Your task to perform on an android device: turn off data saver in the chrome app Image 0: 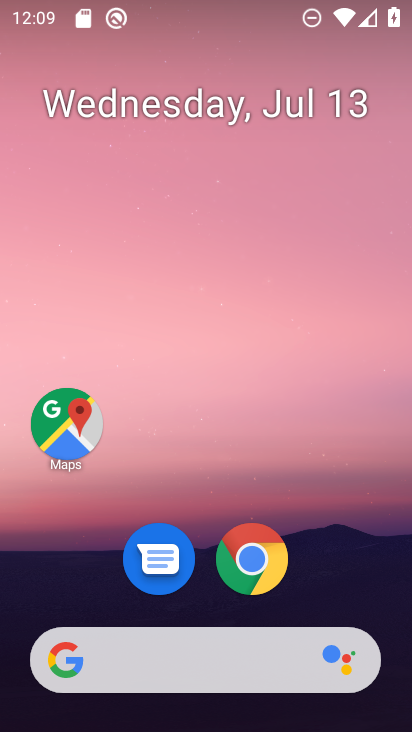
Step 0: drag from (239, 631) to (264, 53)
Your task to perform on an android device: turn off data saver in the chrome app Image 1: 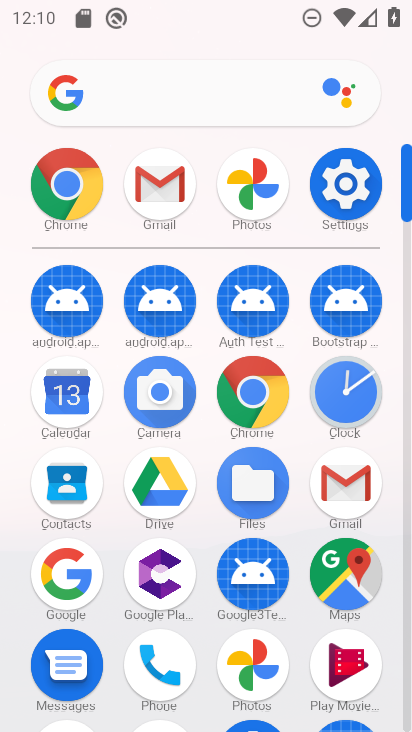
Step 1: click (247, 384)
Your task to perform on an android device: turn off data saver in the chrome app Image 2: 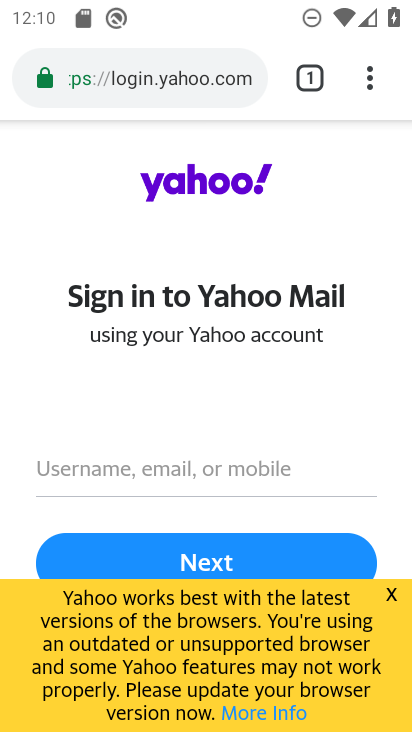
Step 2: click (369, 90)
Your task to perform on an android device: turn off data saver in the chrome app Image 3: 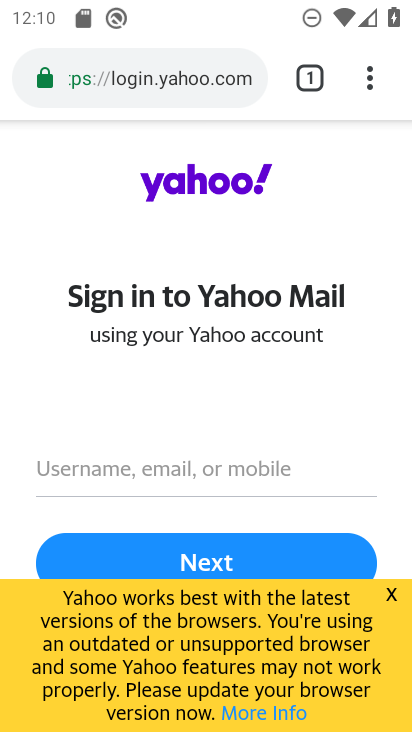
Step 3: click (365, 90)
Your task to perform on an android device: turn off data saver in the chrome app Image 4: 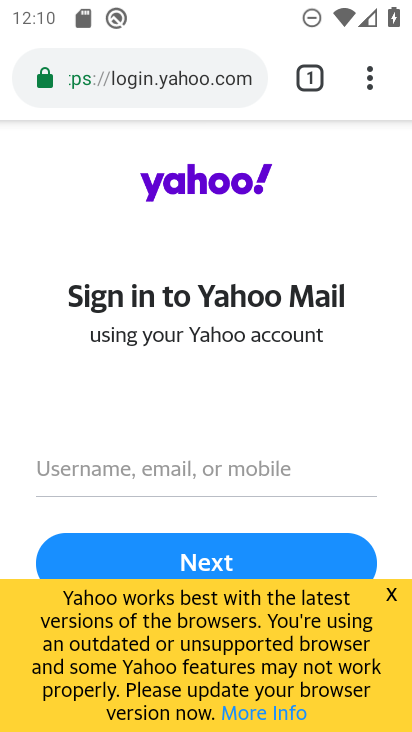
Step 4: click (370, 90)
Your task to perform on an android device: turn off data saver in the chrome app Image 5: 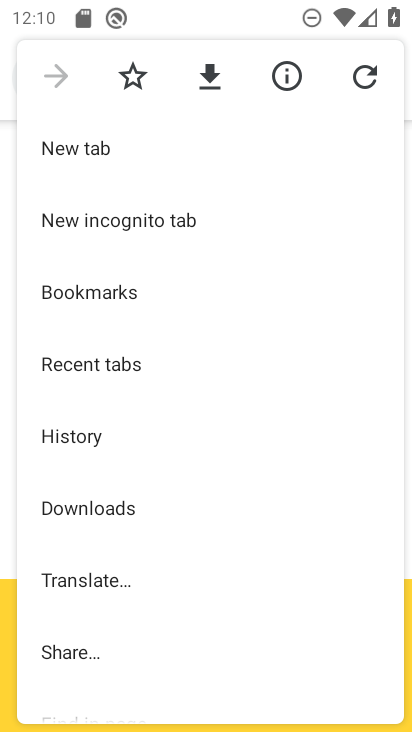
Step 5: drag from (153, 557) to (184, 178)
Your task to perform on an android device: turn off data saver in the chrome app Image 6: 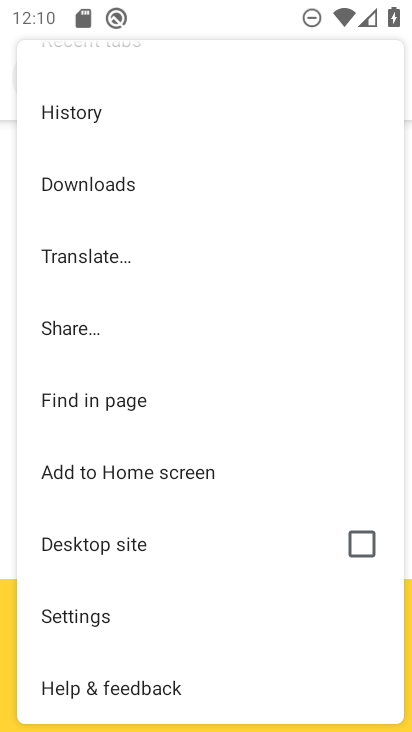
Step 6: click (67, 621)
Your task to perform on an android device: turn off data saver in the chrome app Image 7: 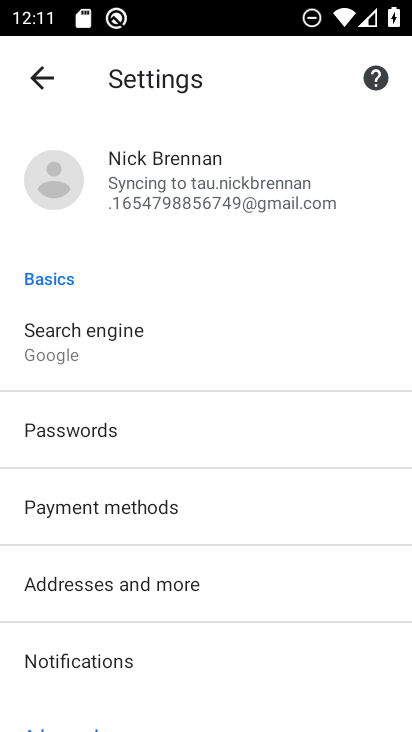
Step 7: drag from (164, 605) to (235, 129)
Your task to perform on an android device: turn off data saver in the chrome app Image 8: 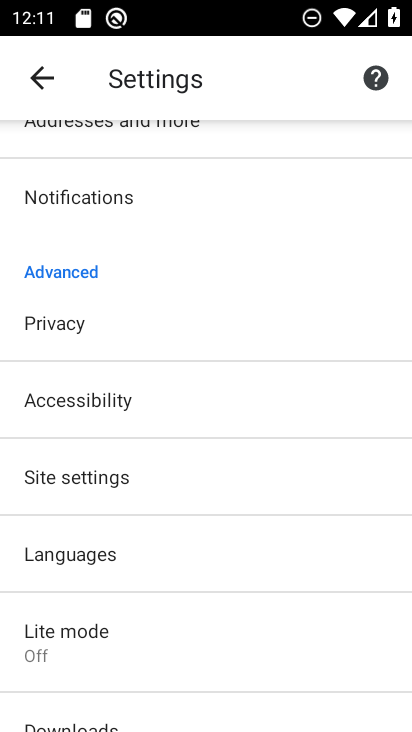
Step 8: drag from (79, 632) to (100, 330)
Your task to perform on an android device: turn off data saver in the chrome app Image 9: 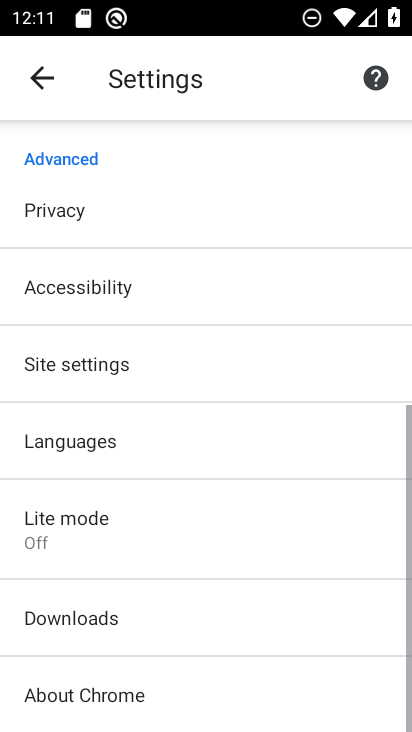
Step 9: click (81, 521)
Your task to perform on an android device: turn off data saver in the chrome app Image 10: 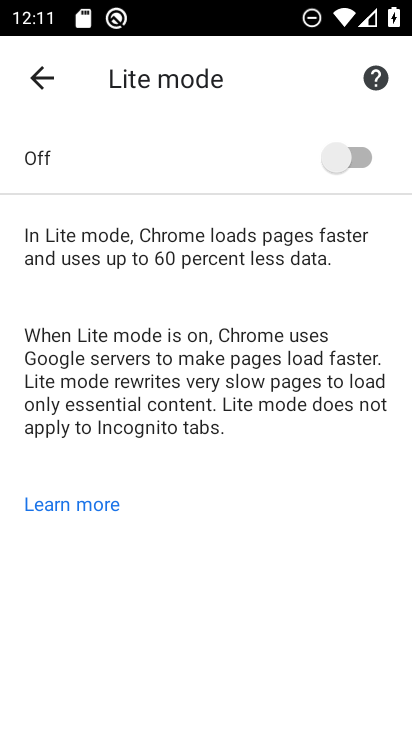
Step 10: task complete